Your task to perform on an android device: Open accessibility settings Image 0: 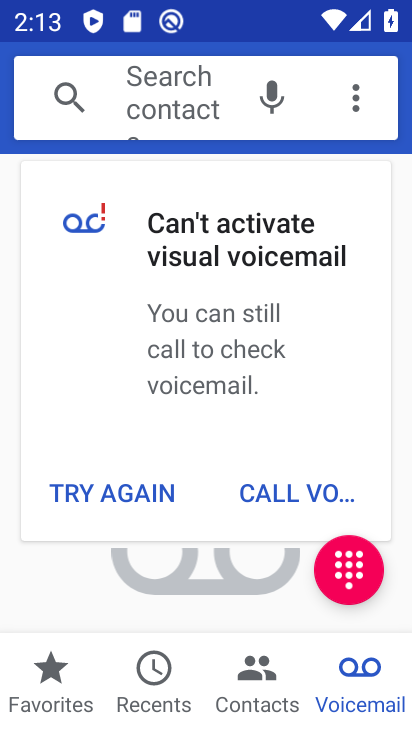
Step 0: press home button
Your task to perform on an android device: Open accessibility settings Image 1: 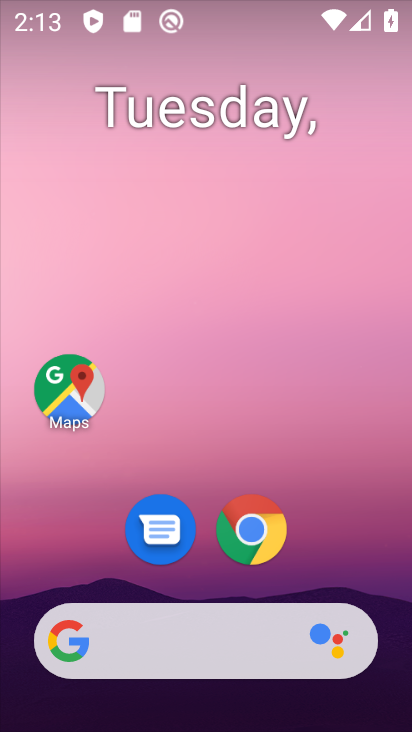
Step 1: drag from (389, 633) to (226, 89)
Your task to perform on an android device: Open accessibility settings Image 2: 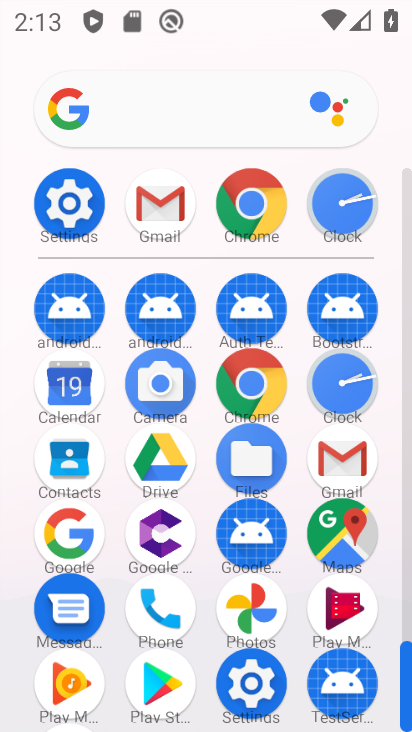
Step 2: click (65, 233)
Your task to perform on an android device: Open accessibility settings Image 3: 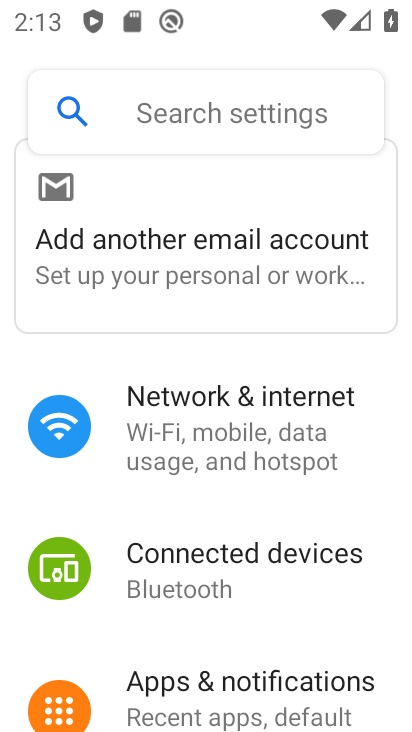
Step 3: drag from (247, 627) to (249, 238)
Your task to perform on an android device: Open accessibility settings Image 4: 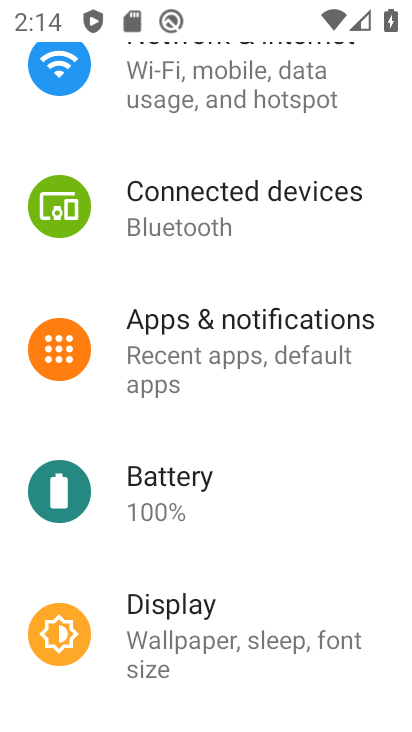
Step 4: drag from (224, 642) to (303, 213)
Your task to perform on an android device: Open accessibility settings Image 5: 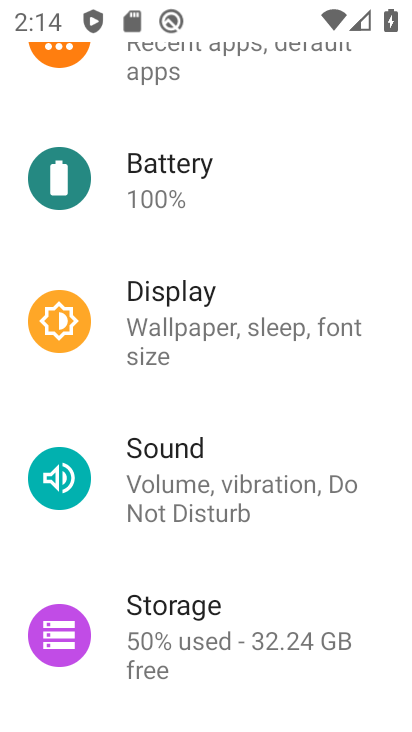
Step 5: drag from (235, 604) to (287, 147)
Your task to perform on an android device: Open accessibility settings Image 6: 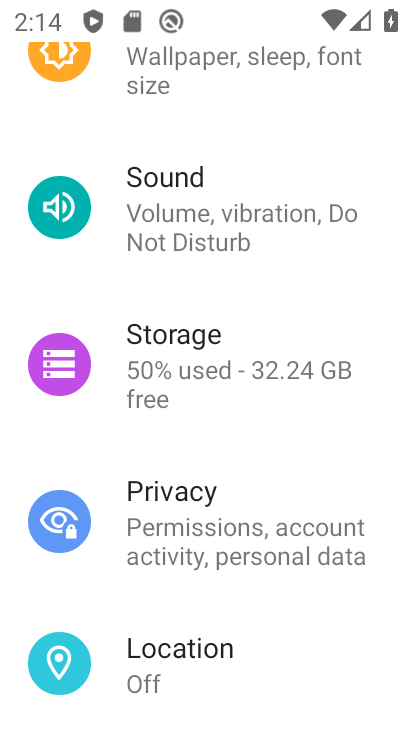
Step 6: drag from (233, 668) to (283, 208)
Your task to perform on an android device: Open accessibility settings Image 7: 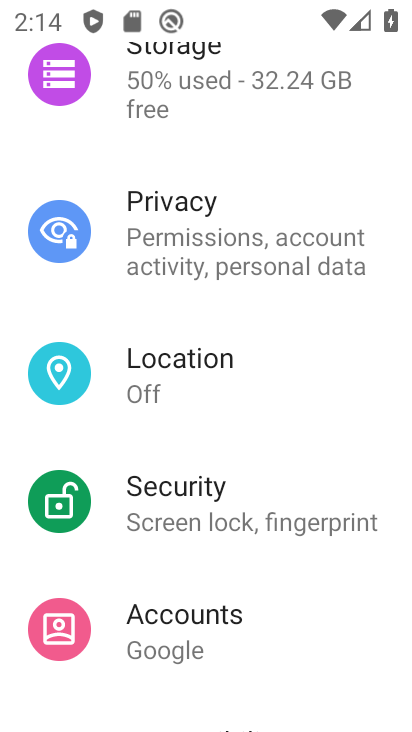
Step 7: drag from (246, 613) to (232, 166)
Your task to perform on an android device: Open accessibility settings Image 8: 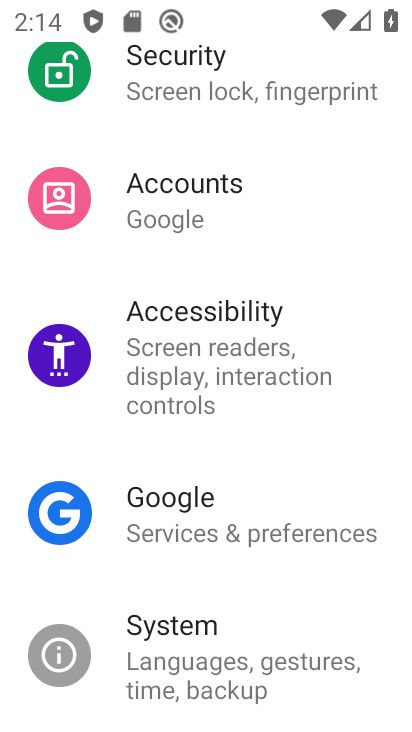
Step 8: click (227, 416)
Your task to perform on an android device: Open accessibility settings Image 9: 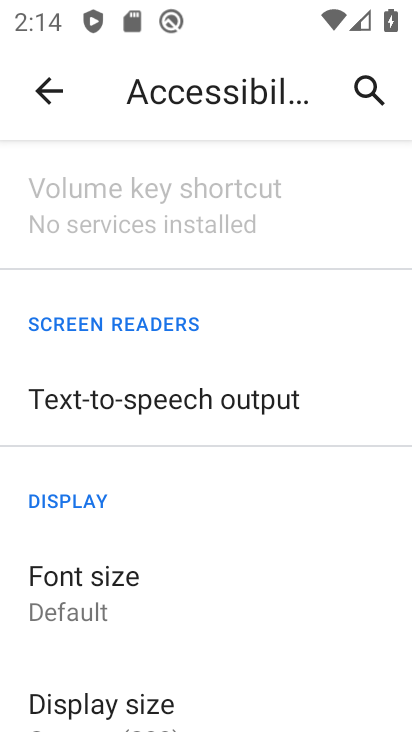
Step 9: task complete